Your task to perform on an android device: turn off notifications in google photos Image 0: 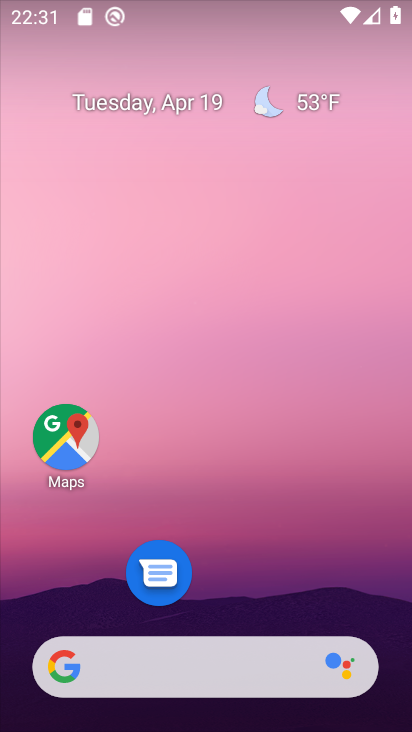
Step 0: drag from (220, 585) to (220, 52)
Your task to perform on an android device: turn off notifications in google photos Image 1: 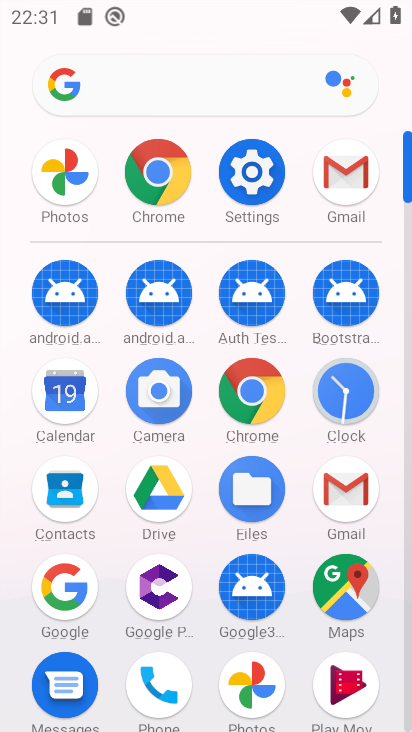
Step 1: click (252, 676)
Your task to perform on an android device: turn off notifications in google photos Image 2: 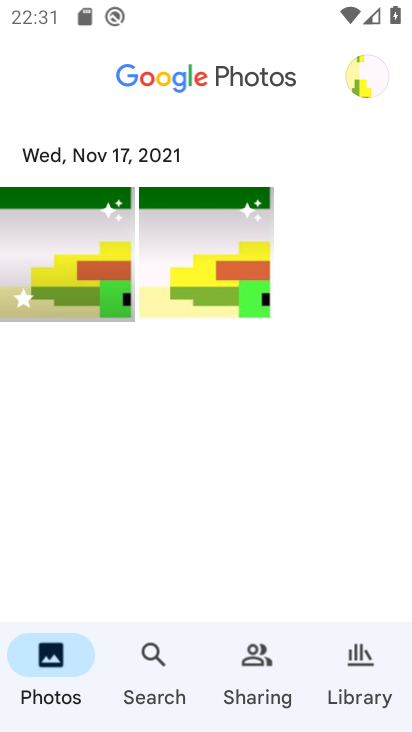
Step 2: click (361, 69)
Your task to perform on an android device: turn off notifications in google photos Image 3: 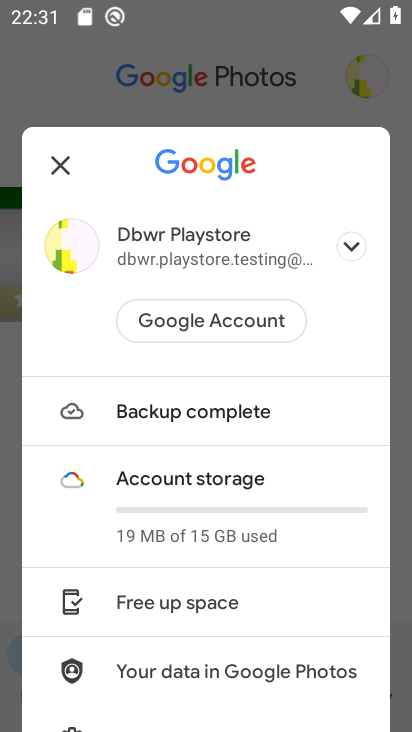
Step 3: drag from (210, 576) to (246, 135)
Your task to perform on an android device: turn off notifications in google photos Image 4: 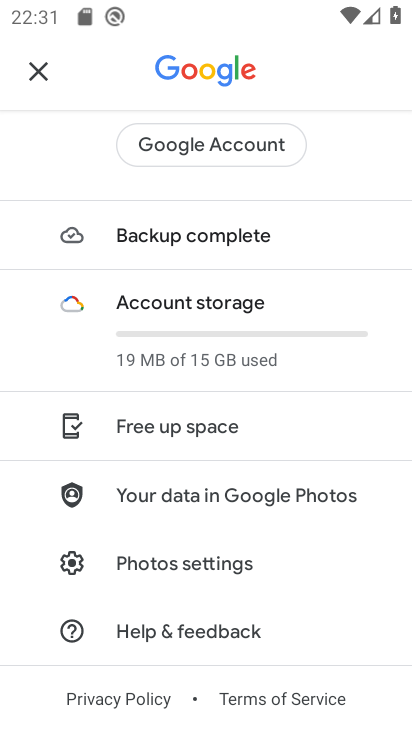
Step 4: click (216, 561)
Your task to perform on an android device: turn off notifications in google photos Image 5: 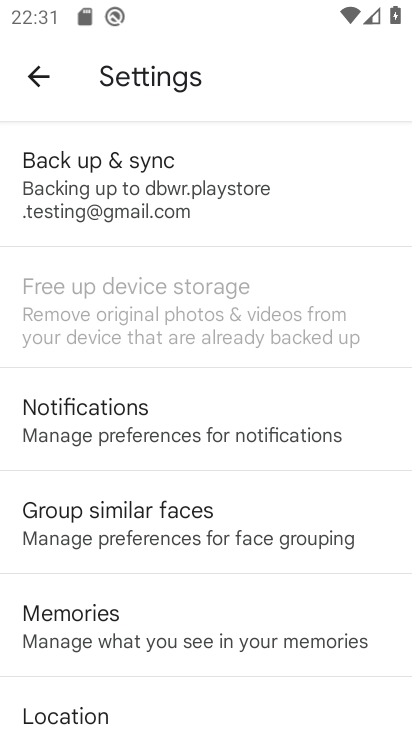
Step 5: click (167, 409)
Your task to perform on an android device: turn off notifications in google photos Image 6: 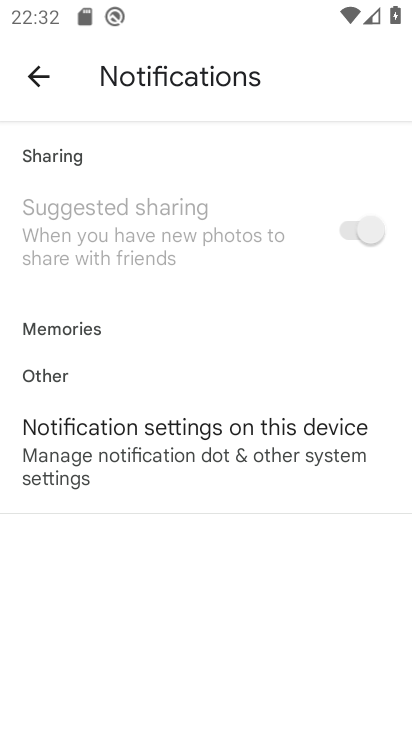
Step 6: click (181, 444)
Your task to perform on an android device: turn off notifications in google photos Image 7: 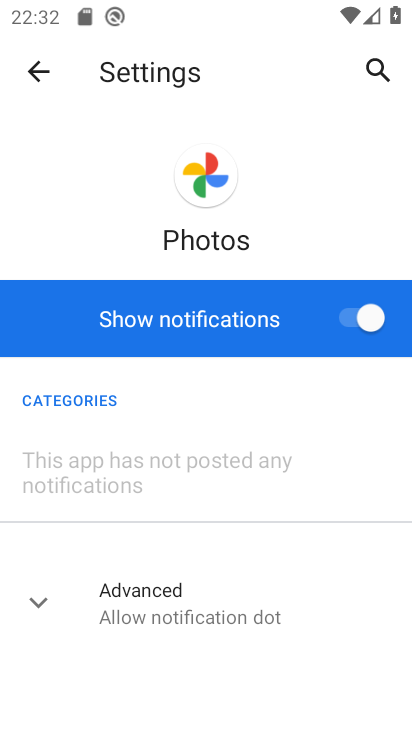
Step 7: click (354, 316)
Your task to perform on an android device: turn off notifications in google photos Image 8: 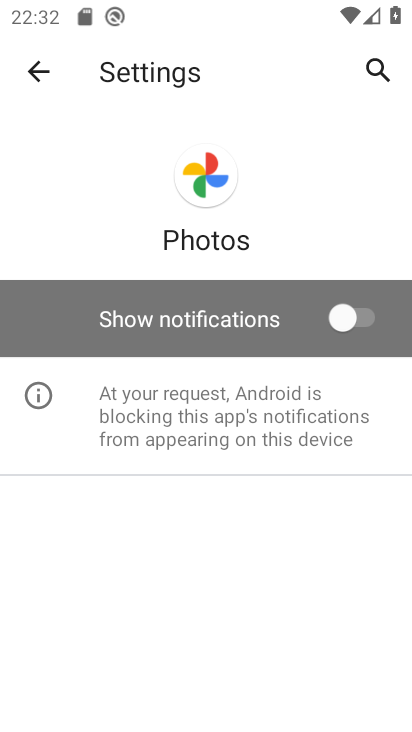
Step 8: task complete